Your task to perform on an android device: Go to CNN.com Image 0: 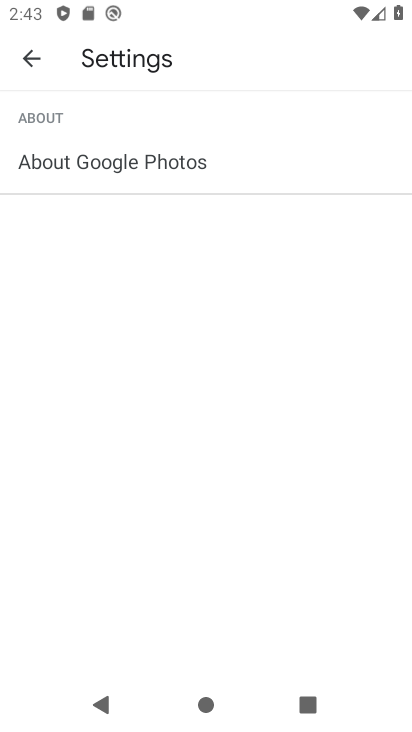
Step 0: press home button
Your task to perform on an android device: Go to CNN.com Image 1: 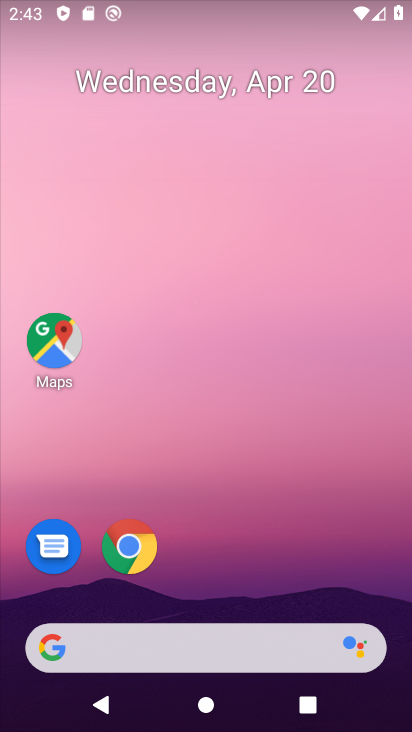
Step 1: click (135, 555)
Your task to perform on an android device: Go to CNN.com Image 2: 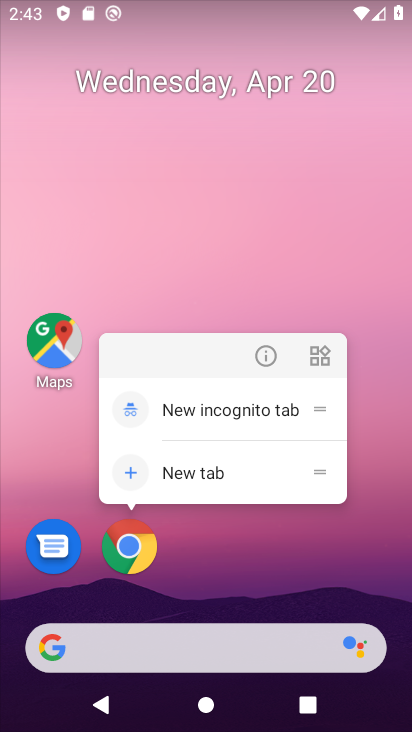
Step 2: click (136, 561)
Your task to perform on an android device: Go to CNN.com Image 3: 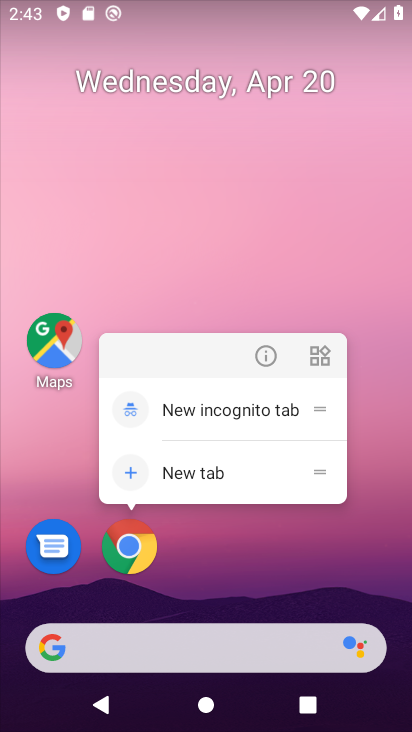
Step 3: click (136, 561)
Your task to perform on an android device: Go to CNN.com Image 4: 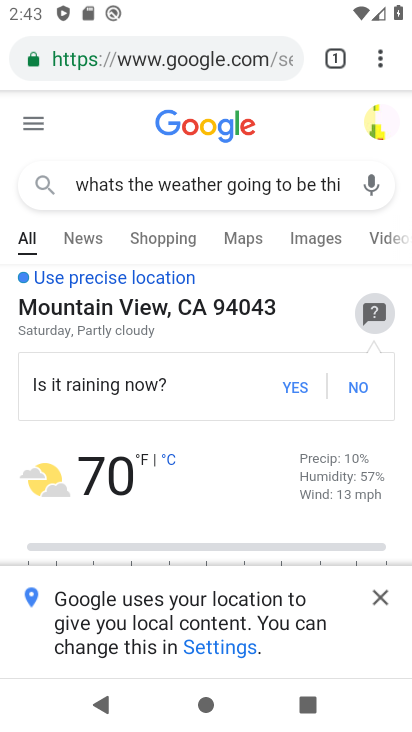
Step 4: click (122, 67)
Your task to perform on an android device: Go to CNN.com Image 5: 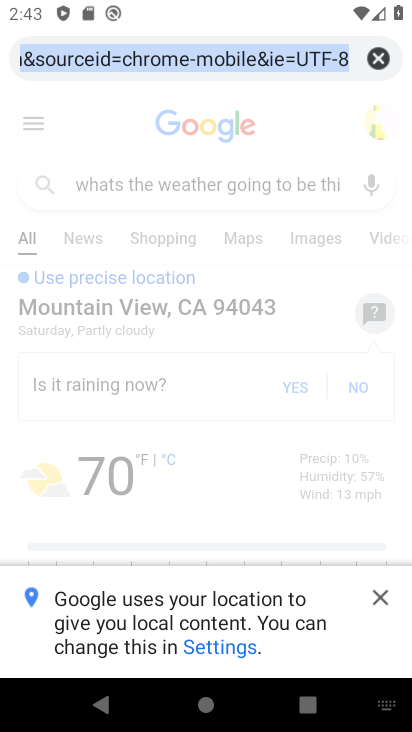
Step 5: type "CNN.com"
Your task to perform on an android device: Go to CNN.com Image 6: 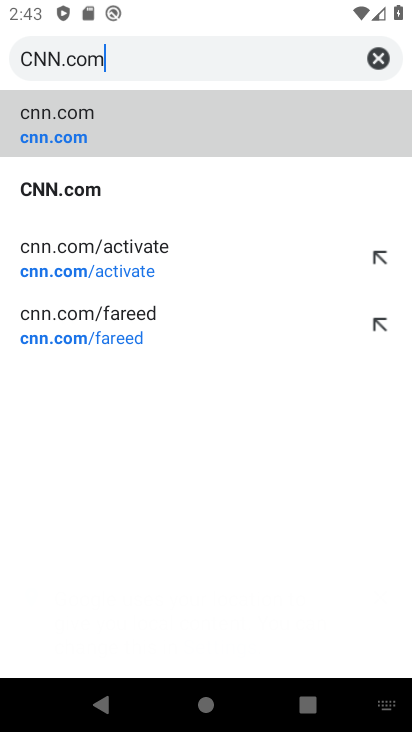
Step 6: click (76, 122)
Your task to perform on an android device: Go to CNN.com Image 7: 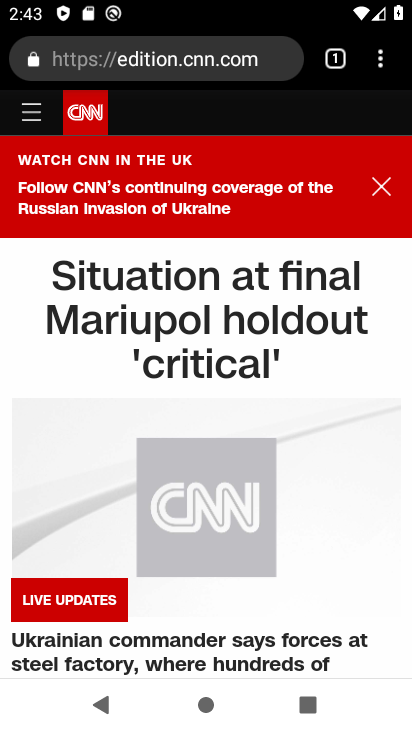
Step 7: task complete